Your task to perform on an android device: Open location settings Image 0: 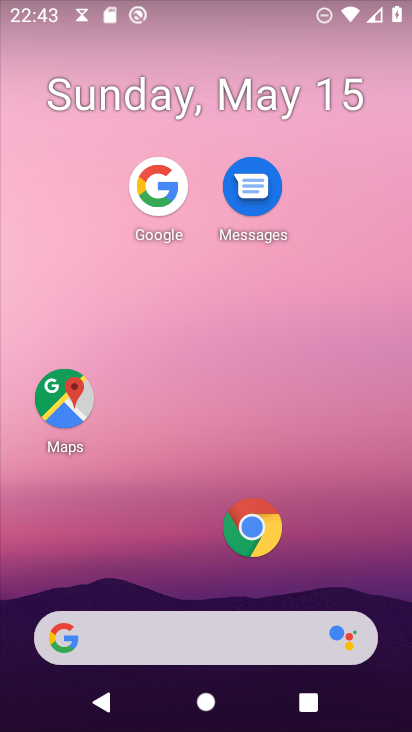
Step 0: press home button
Your task to perform on an android device: Open location settings Image 1: 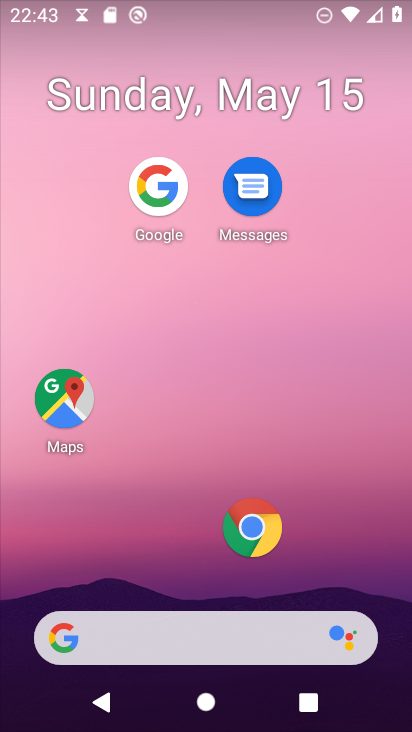
Step 1: drag from (196, 648) to (369, 115)
Your task to perform on an android device: Open location settings Image 2: 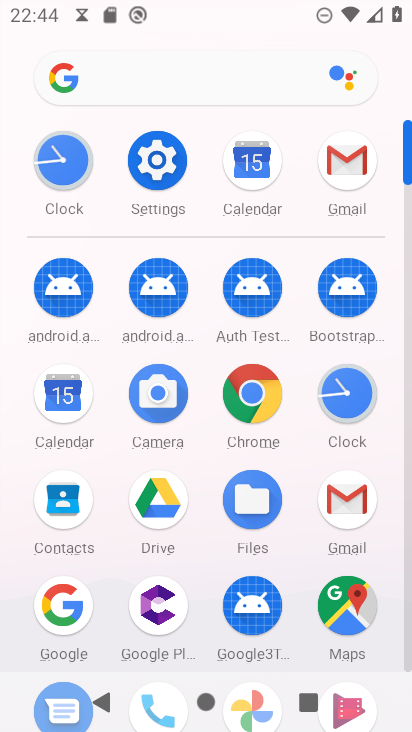
Step 2: drag from (193, 545) to (354, 252)
Your task to perform on an android device: Open location settings Image 3: 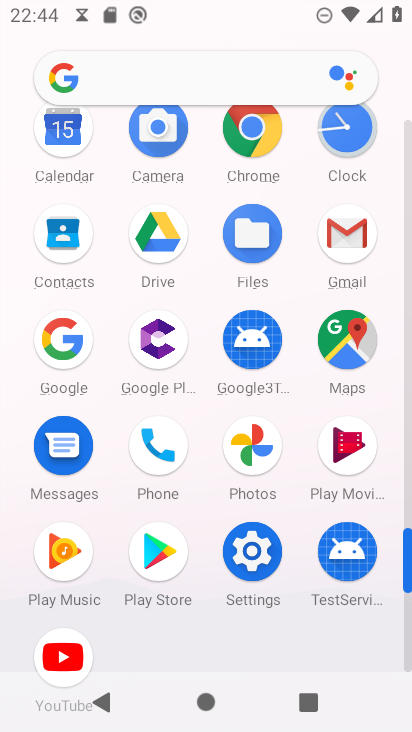
Step 3: drag from (209, 212) to (202, 603)
Your task to perform on an android device: Open location settings Image 4: 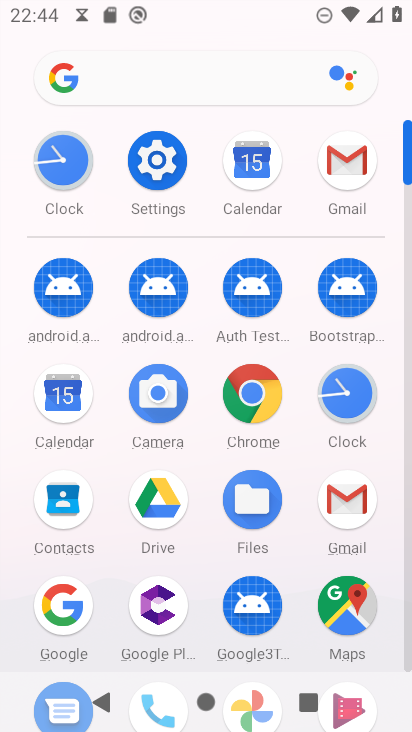
Step 4: click (159, 170)
Your task to perform on an android device: Open location settings Image 5: 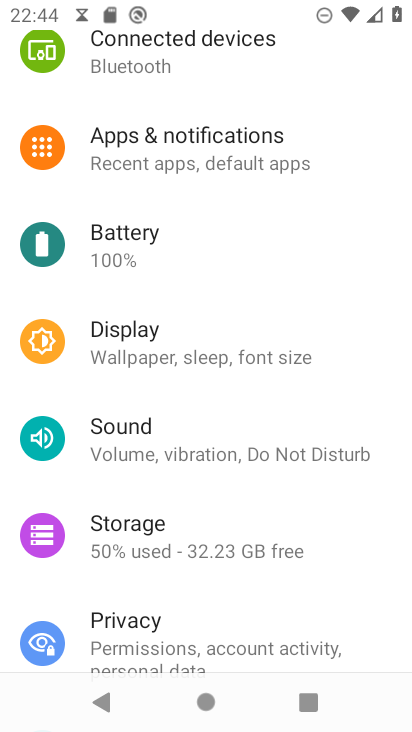
Step 5: drag from (191, 580) to (335, 200)
Your task to perform on an android device: Open location settings Image 6: 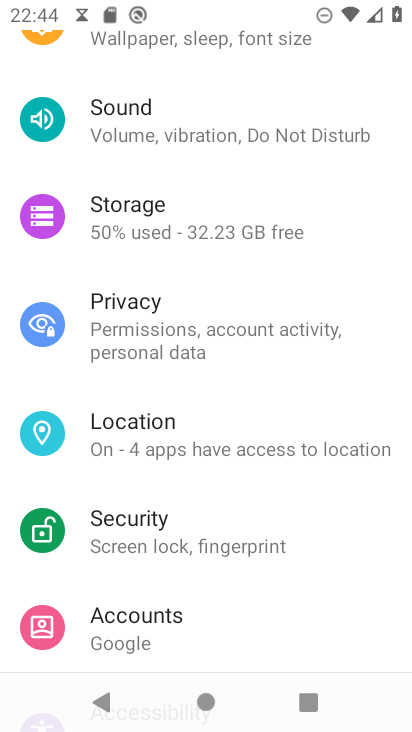
Step 6: click (170, 442)
Your task to perform on an android device: Open location settings Image 7: 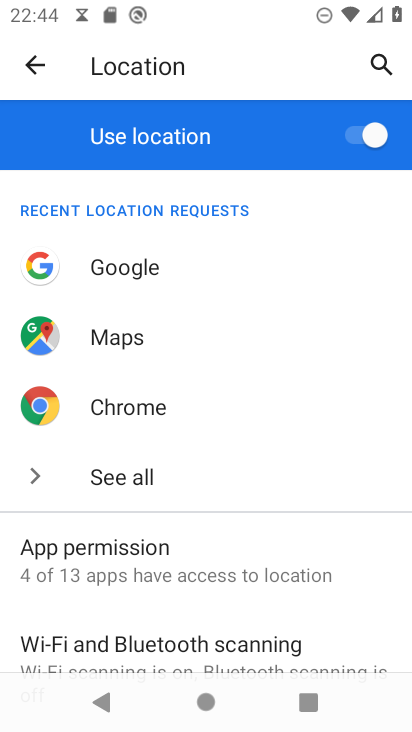
Step 7: task complete